Your task to perform on an android device: all mails in gmail Image 0: 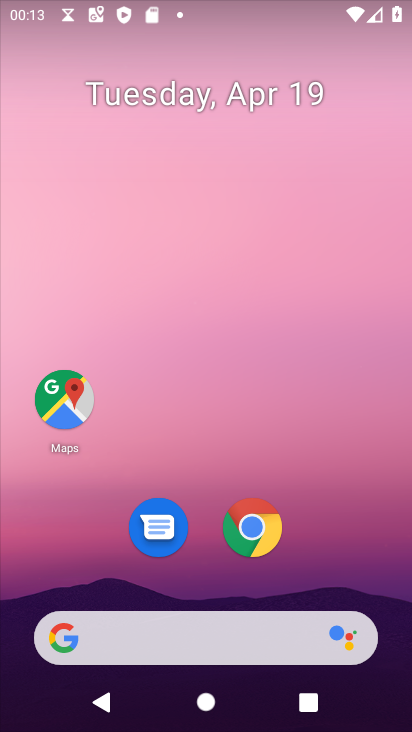
Step 0: drag from (333, 540) to (351, 51)
Your task to perform on an android device: all mails in gmail Image 1: 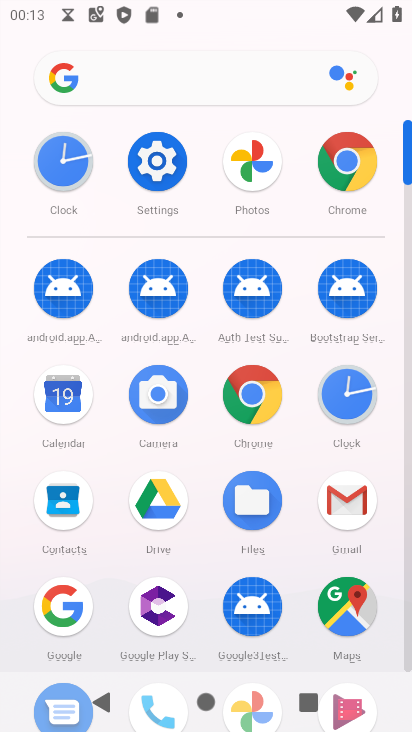
Step 1: click (345, 500)
Your task to perform on an android device: all mails in gmail Image 2: 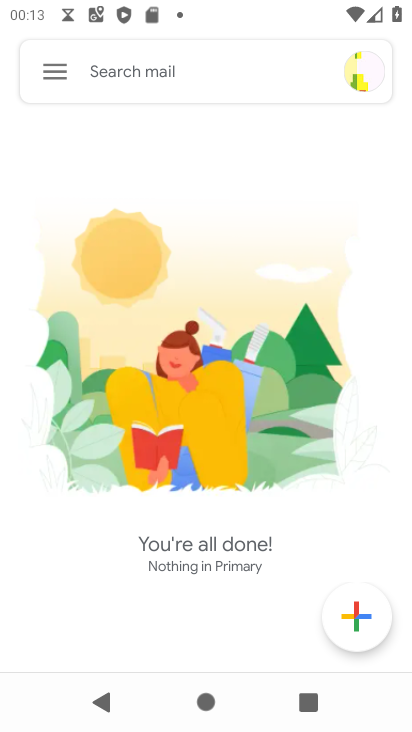
Step 2: click (52, 69)
Your task to perform on an android device: all mails in gmail Image 3: 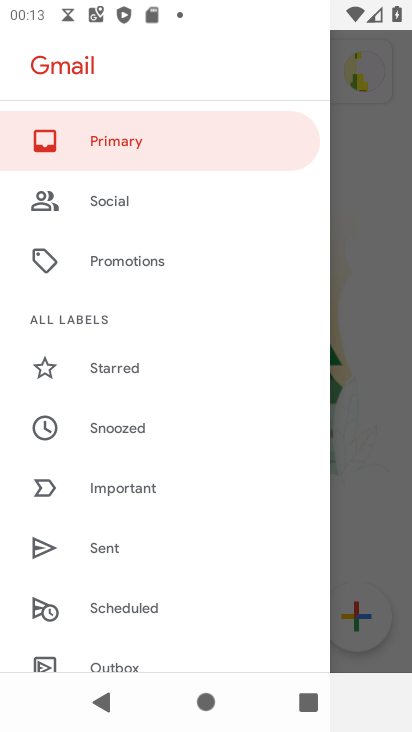
Step 3: drag from (139, 570) to (195, 331)
Your task to perform on an android device: all mails in gmail Image 4: 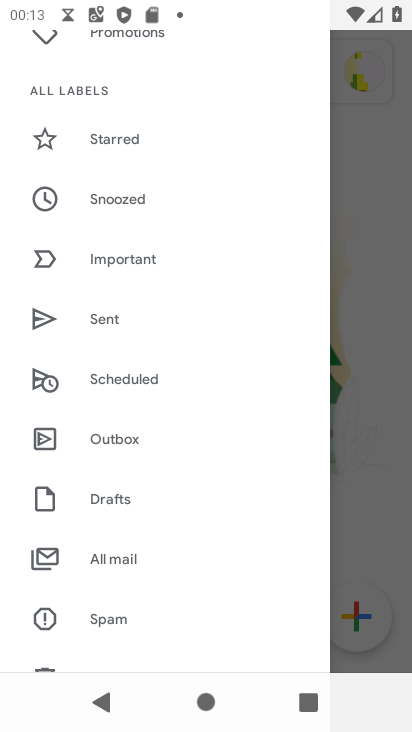
Step 4: click (213, 552)
Your task to perform on an android device: all mails in gmail Image 5: 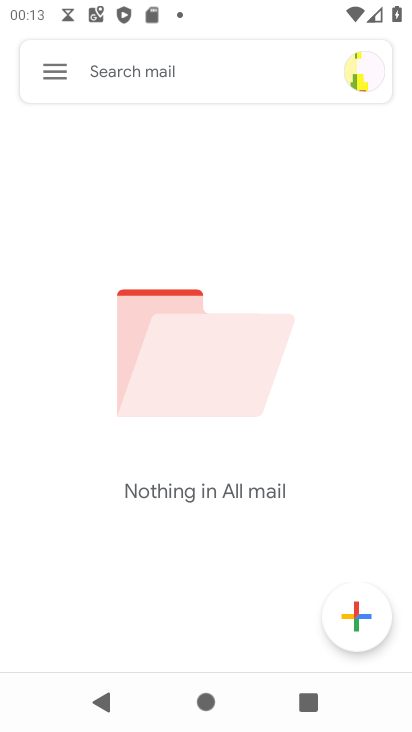
Step 5: task complete